Your task to perform on an android device: turn on airplane mode Image 0: 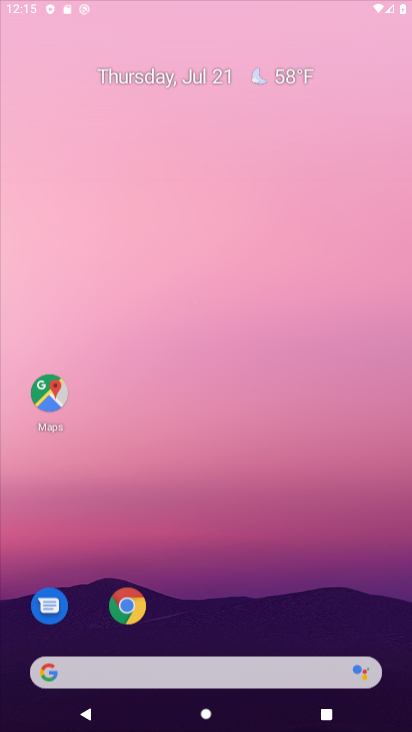
Step 0: press home button
Your task to perform on an android device: turn on airplane mode Image 1: 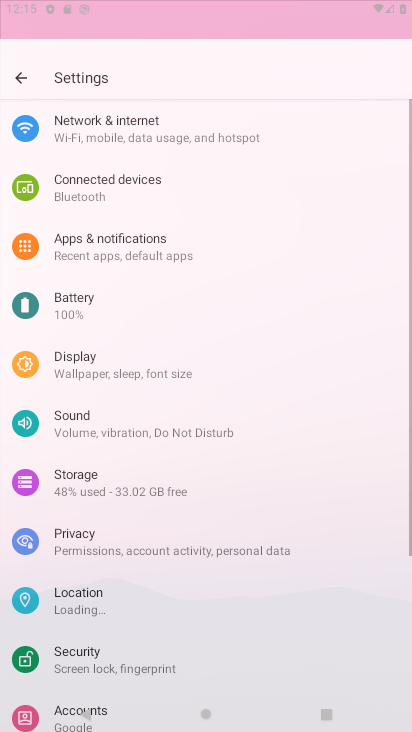
Step 1: drag from (217, 628) to (243, 151)
Your task to perform on an android device: turn on airplane mode Image 2: 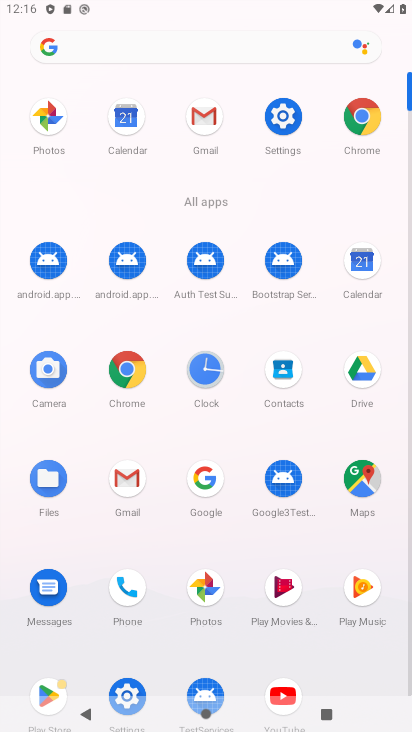
Step 2: drag from (288, 4) to (279, 495)
Your task to perform on an android device: turn on airplane mode Image 3: 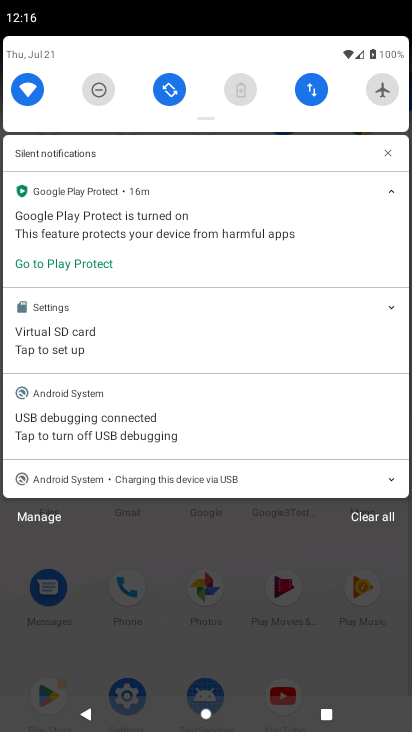
Step 3: click (383, 85)
Your task to perform on an android device: turn on airplane mode Image 4: 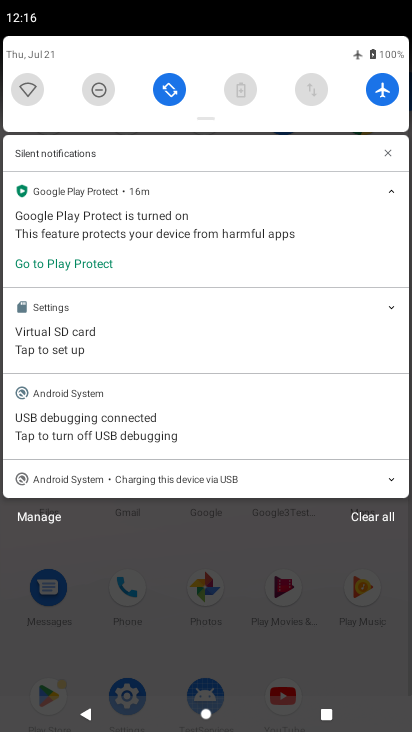
Step 4: task complete